Your task to perform on an android device: add a contact Image 0: 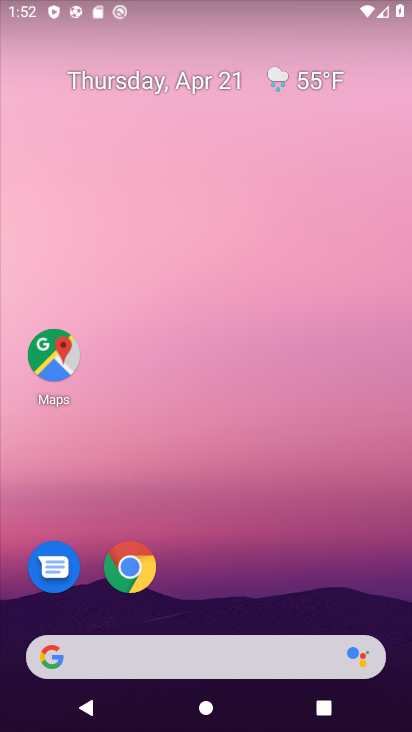
Step 0: drag from (182, 663) to (318, 157)
Your task to perform on an android device: add a contact Image 1: 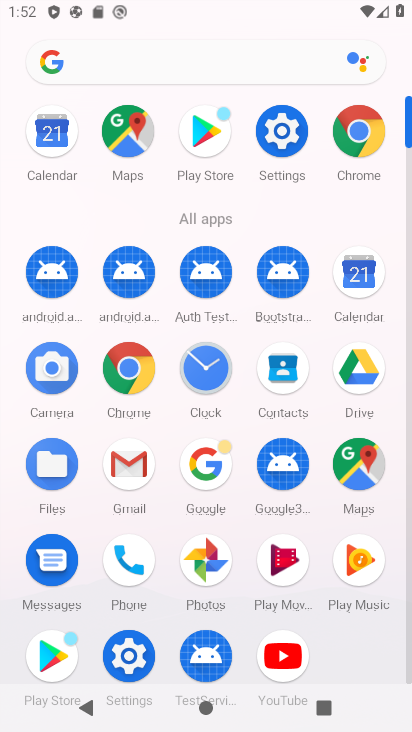
Step 1: click (284, 384)
Your task to perform on an android device: add a contact Image 2: 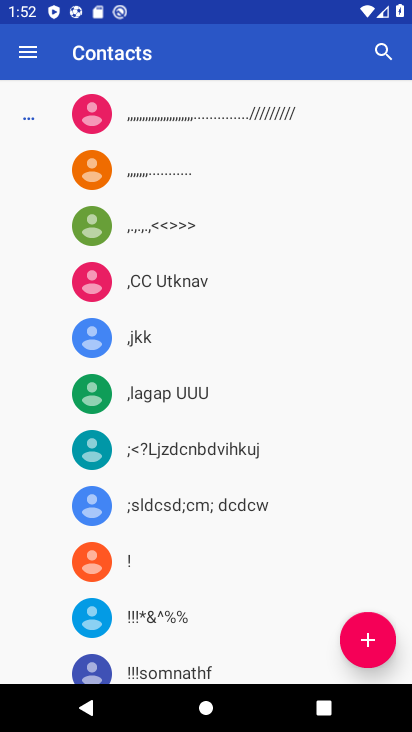
Step 2: click (367, 627)
Your task to perform on an android device: add a contact Image 3: 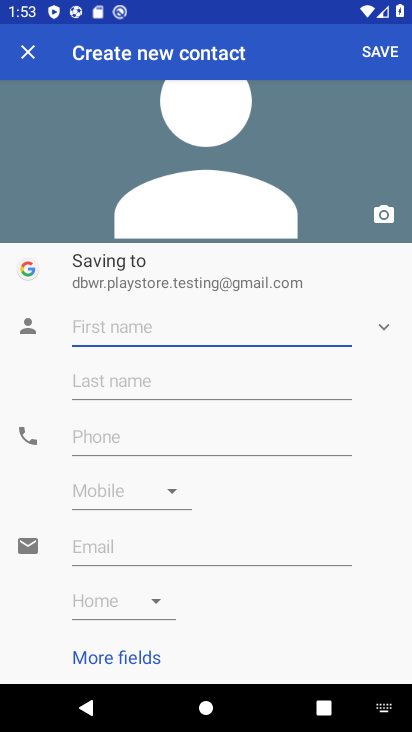
Step 3: click (154, 331)
Your task to perform on an android device: add a contact Image 4: 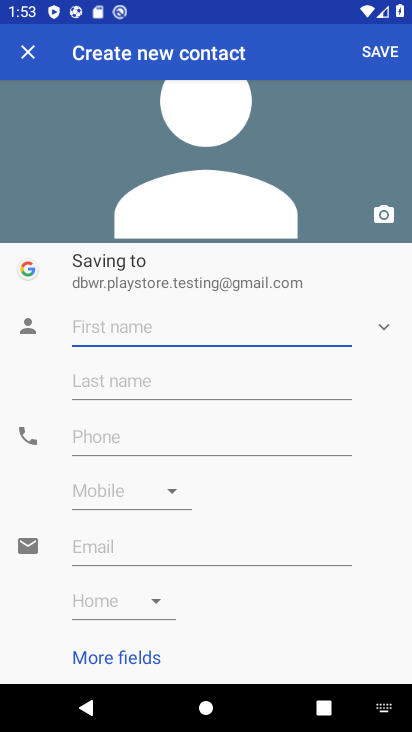
Step 4: type "xcfdgtyr"
Your task to perform on an android device: add a contact Image 5: 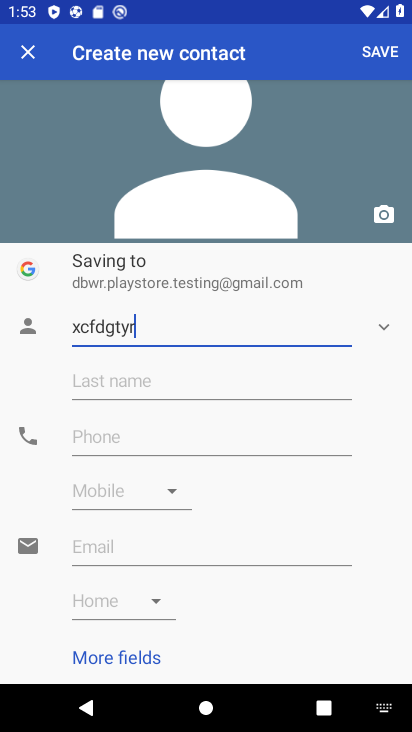
Step 5: click (103, 442)
Your task to perform on an android device: add a contact Image 6: 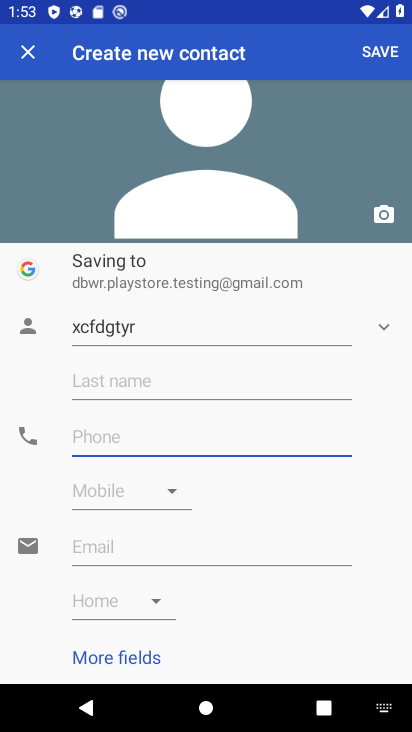
Step 6: type "508564376"
Your task to perform on an android device: add a contact Image 7: 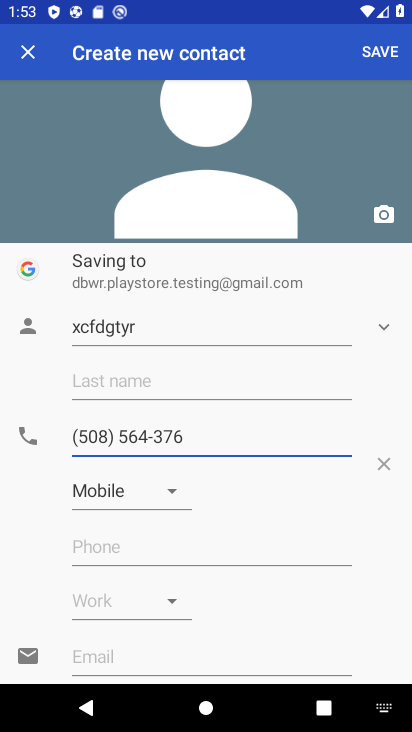
Step 7: click (376, 51)
Your task to perform on an android device: add a contact Image 8: 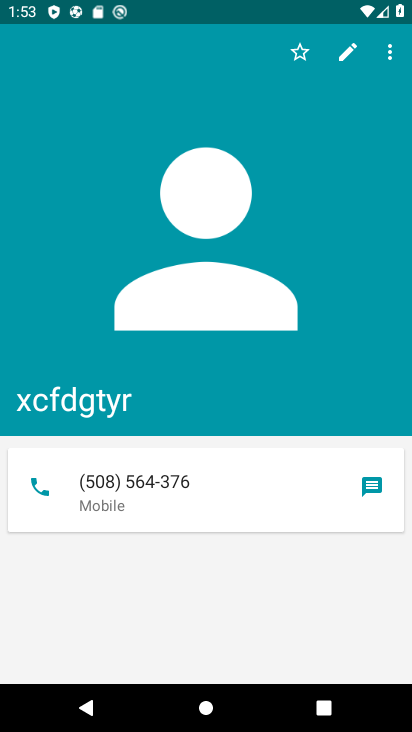
Step 8: task complete